Your task to perform on an android device: Add razer kraken to the cart on walmart.com Image 0: 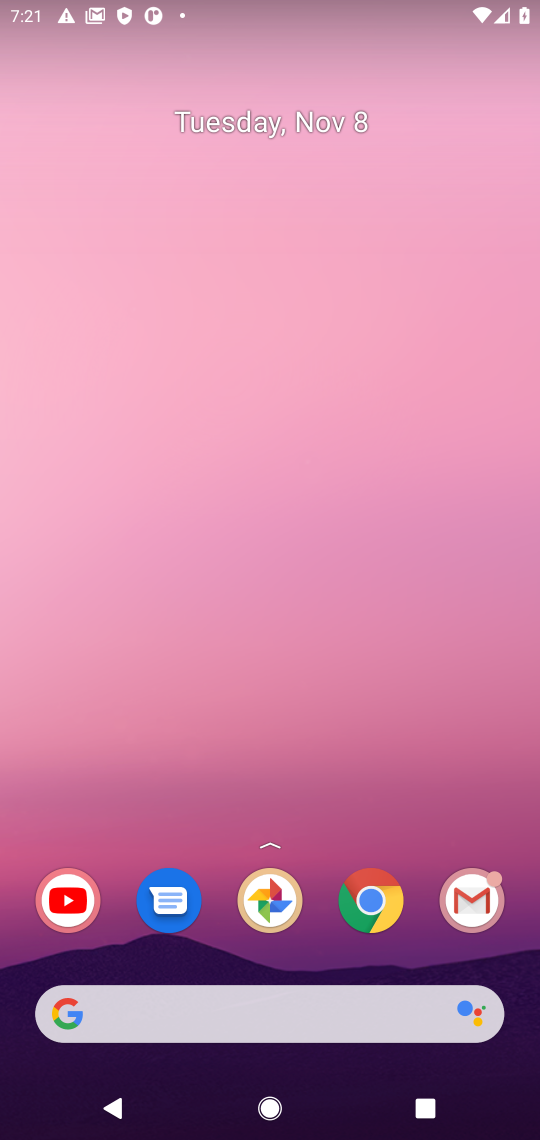
Step 0: click (367, 915)
Your task to perform on an android device: Add razer kraken to the cart on walmart.com Image 1: 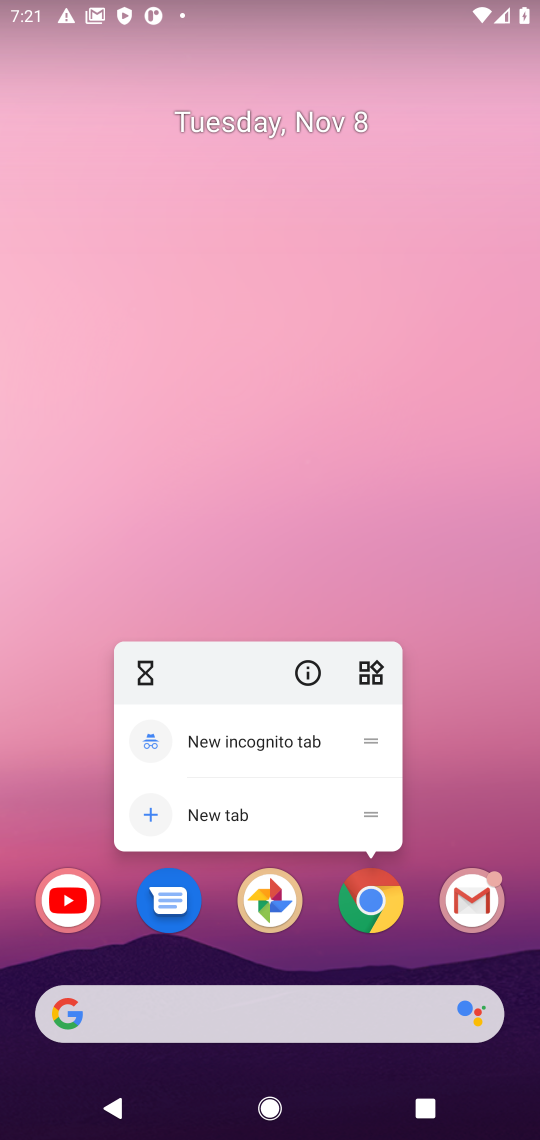
Step 1: click (367, 916)
Your task to perform on an android device: Add razer kraken to the cart on walmart.com Image 2: 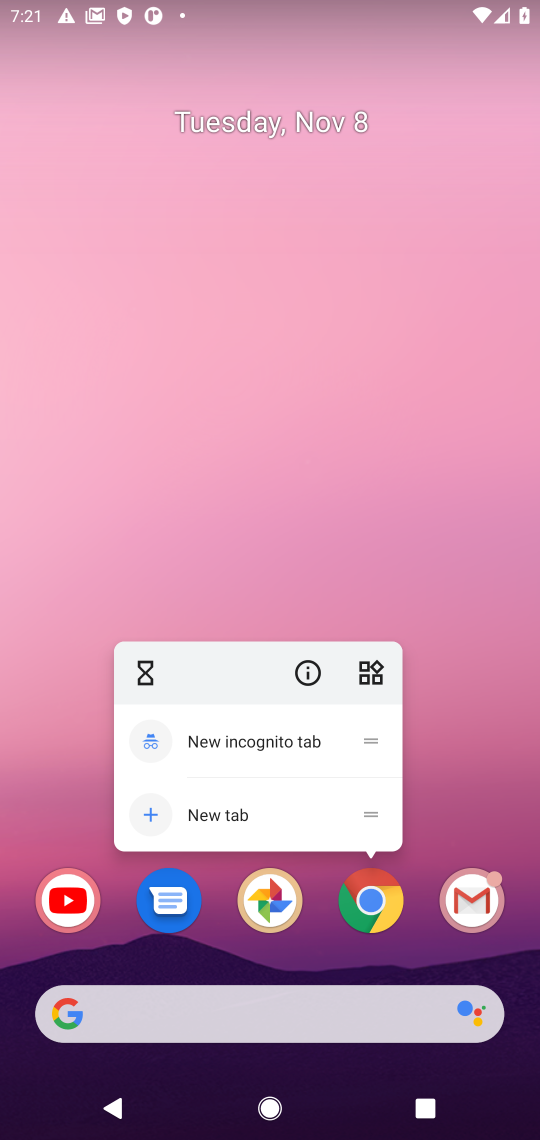
Step 2: click (367, 916)
Your task to perform on an android device: Add razer kraken to the cart on walmart.com Image 3: 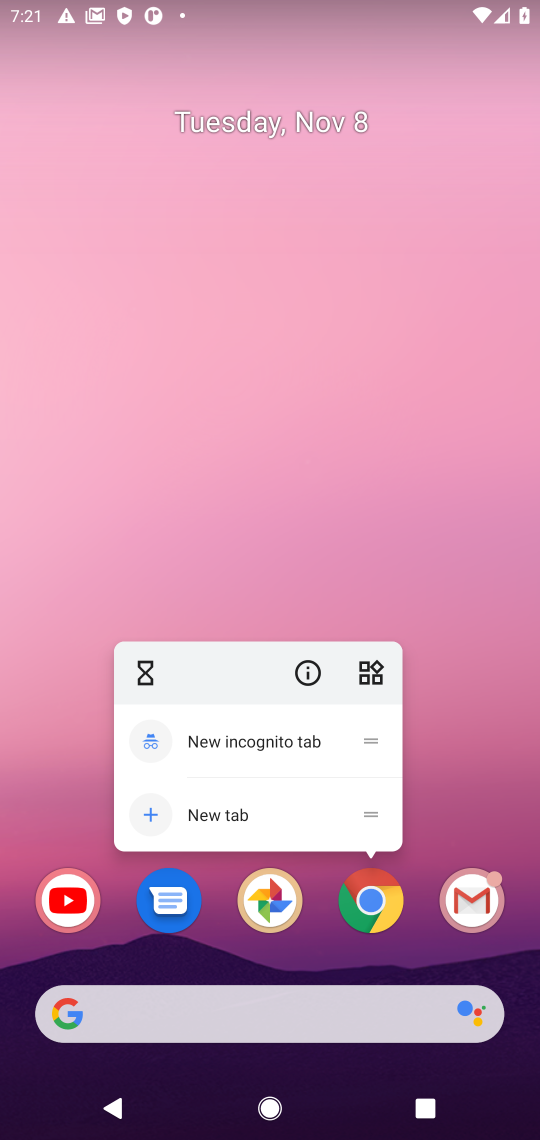
Step 3: click (376, 901)
Your task to perform on an android device: Add razer kraken to the cart on walmart.com Image 4: 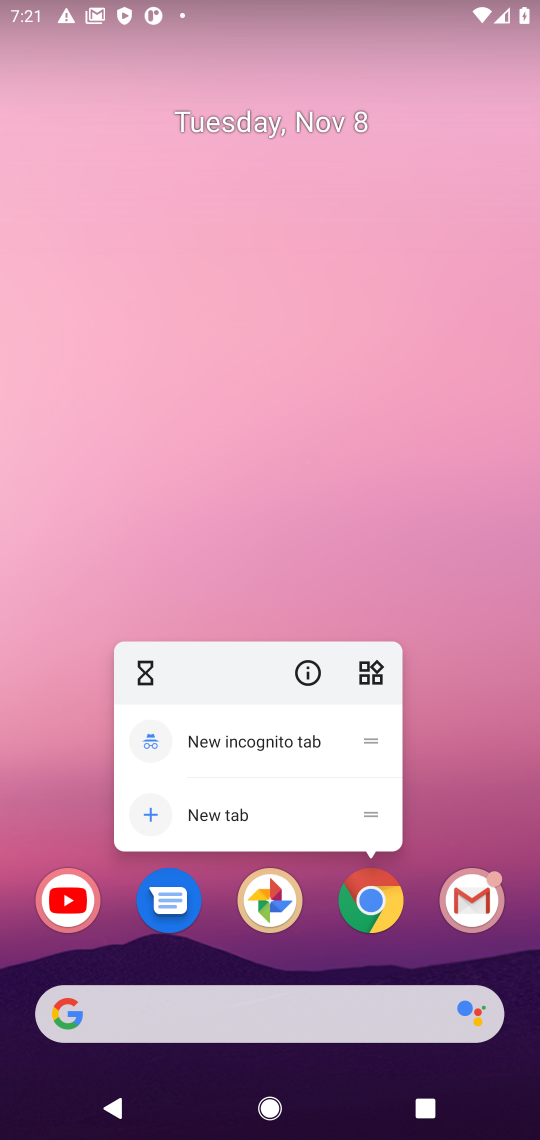
Step 4: click (381, 905)
Your task to perform on an android device: Add razer kraken to the cart on walmart.com Image 5: 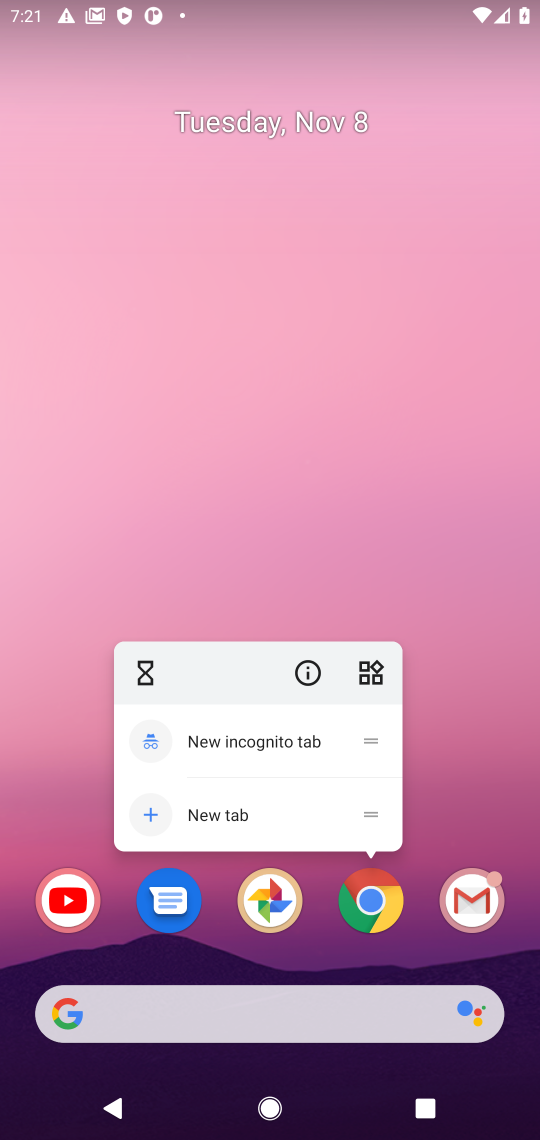
Step 5: click (381, 905)
Your task to perform on an android device: Add razer kraken to the cart on walmart.com Image 6: 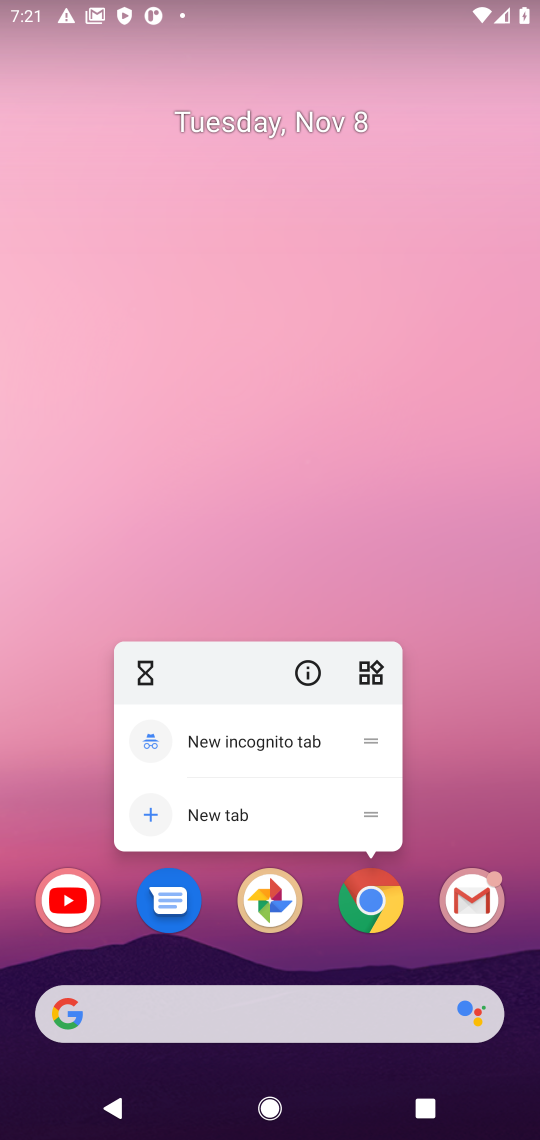
Step 6: click (381, 905)
Your task to perform on an android device: Add razer kraken to the cart on walmart.com Image 7: 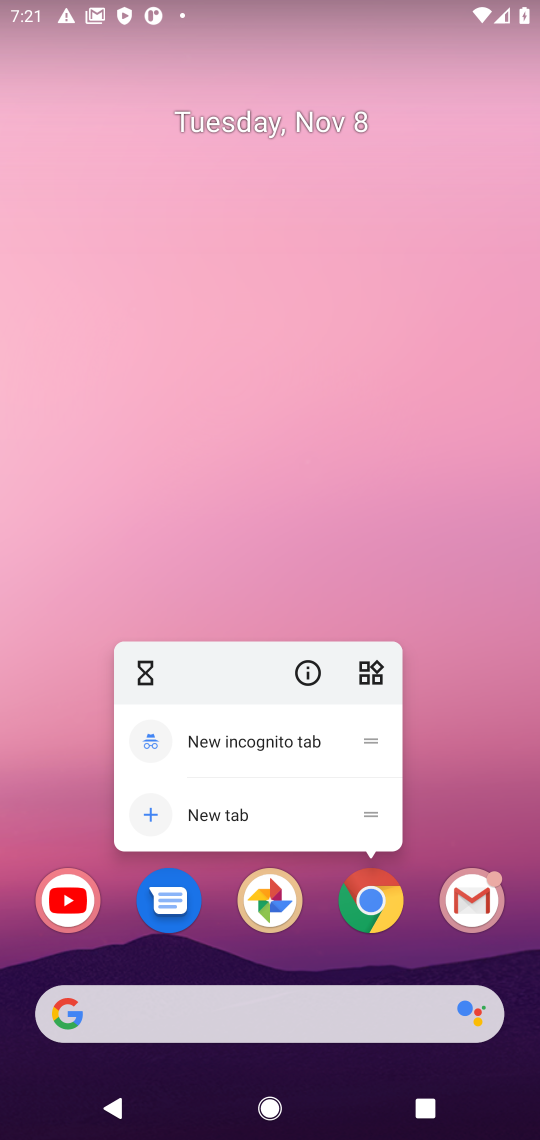
Step 7: click (373, 899)
Your task to perform on an android device: Add razer kraken to the cart on walmart.com Image 8: 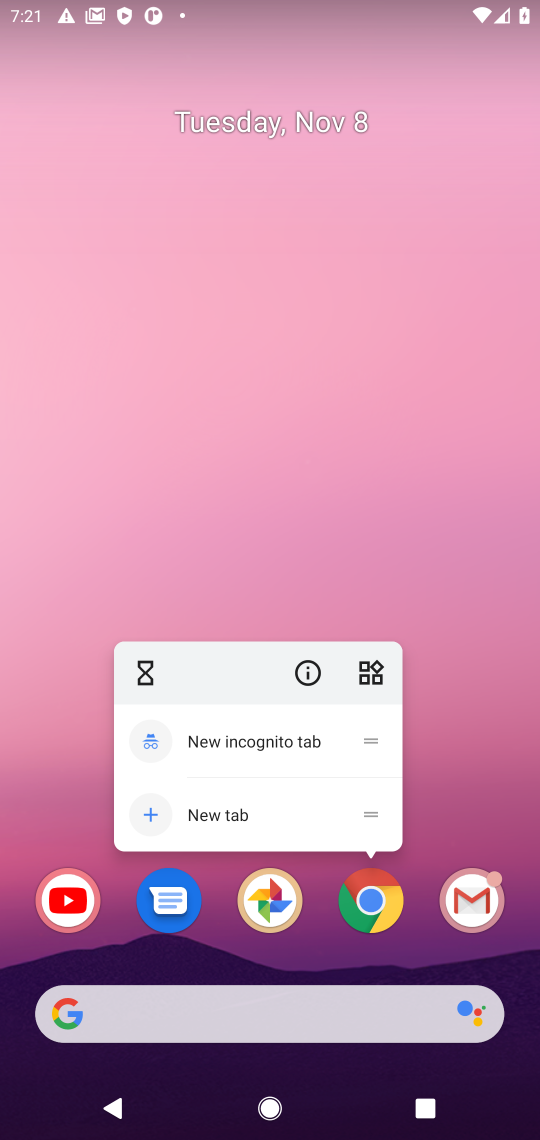
Step 8: press home button
Your task to perform on an android device: Add razer kraken to the cart on walmart.com Image 9: 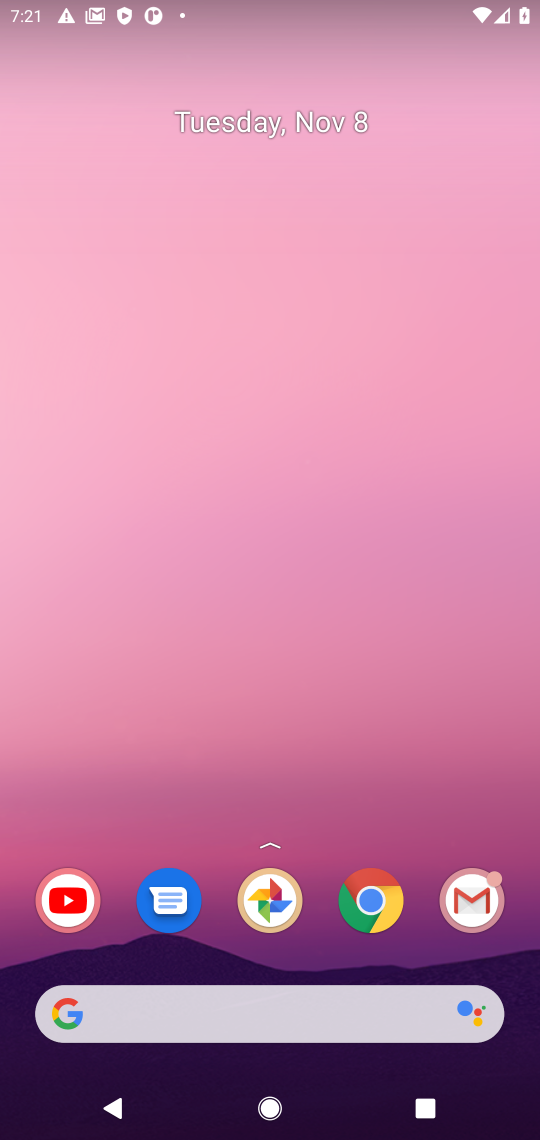
Step 9: press home button
Your task to perform on an android device: Add razer kraken to the cart on walmart.com Image 10: 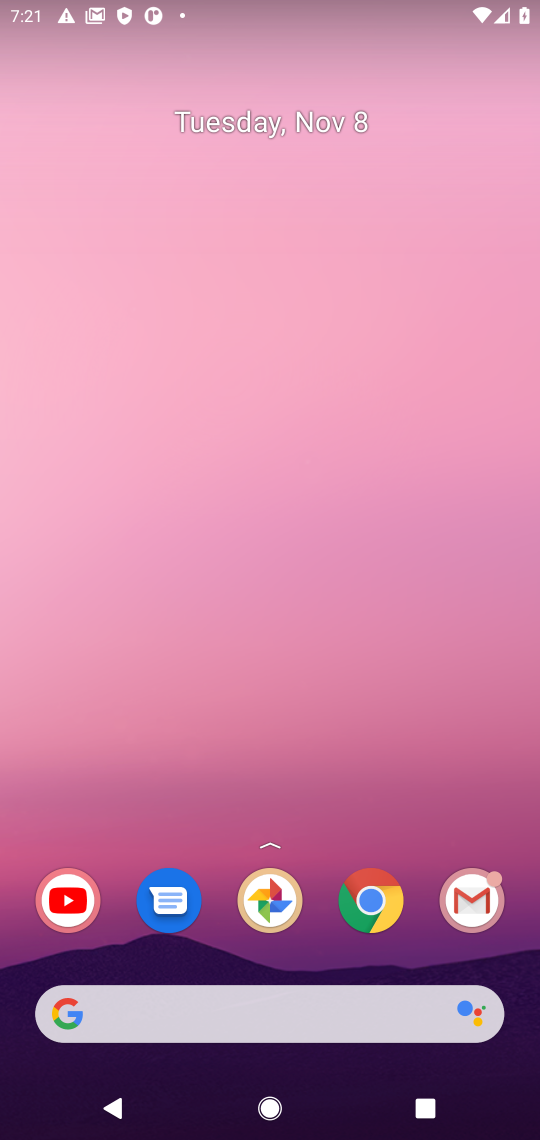
Step 10: press home button
Your task to perform on an android device: Add razer kraken to the cart on walmart.com Image 11: 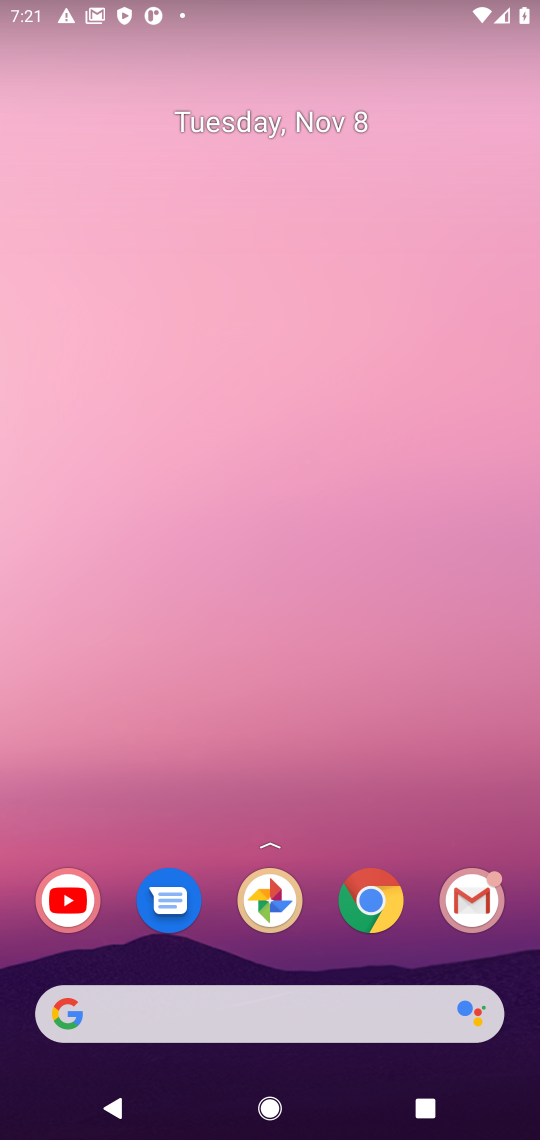
Step 11: click (368, 891)
Your task to perform on an android device: Add razer kraken to the cart on walmart.com Image 12: 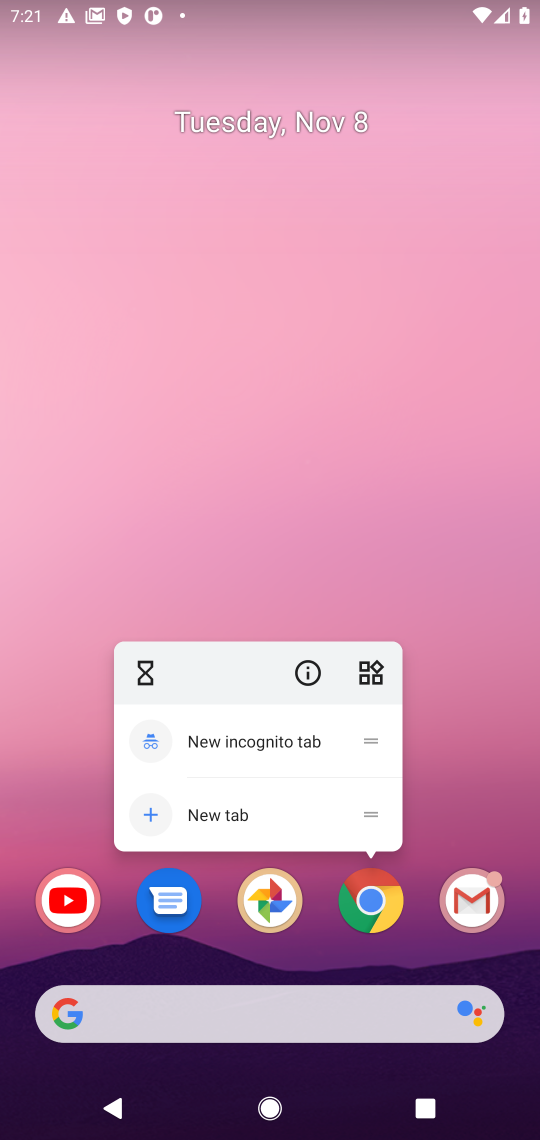
Step 12: click (389, 907)
Your task to perform on an android device: Add razer kraken to the cart on walmart.com Image 13: 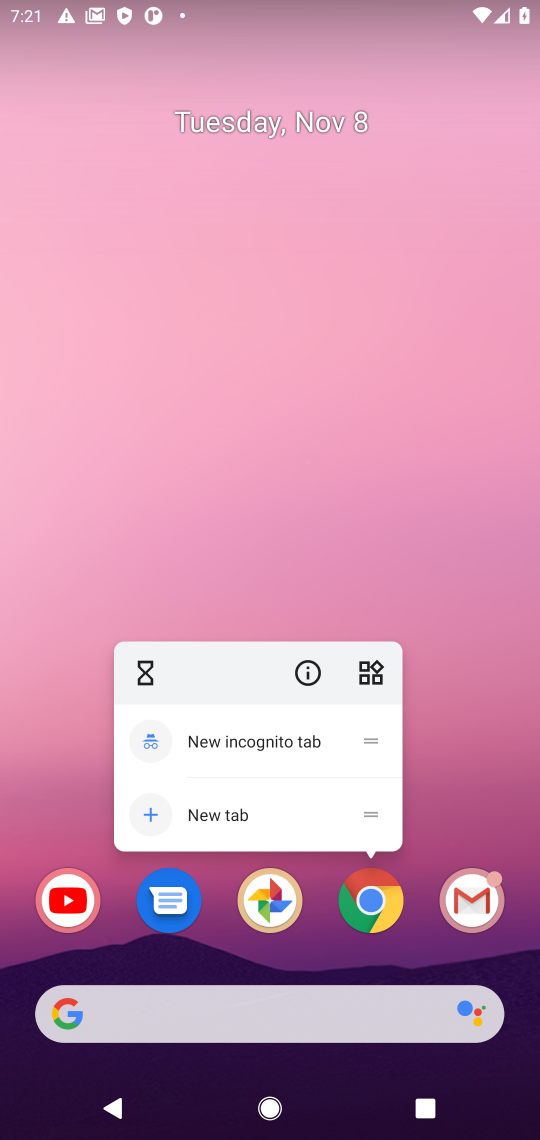
Step 13: click (385, 904)
Your task to perform on an android device: Add razer kraken to the cart on walmart.com Image 14: 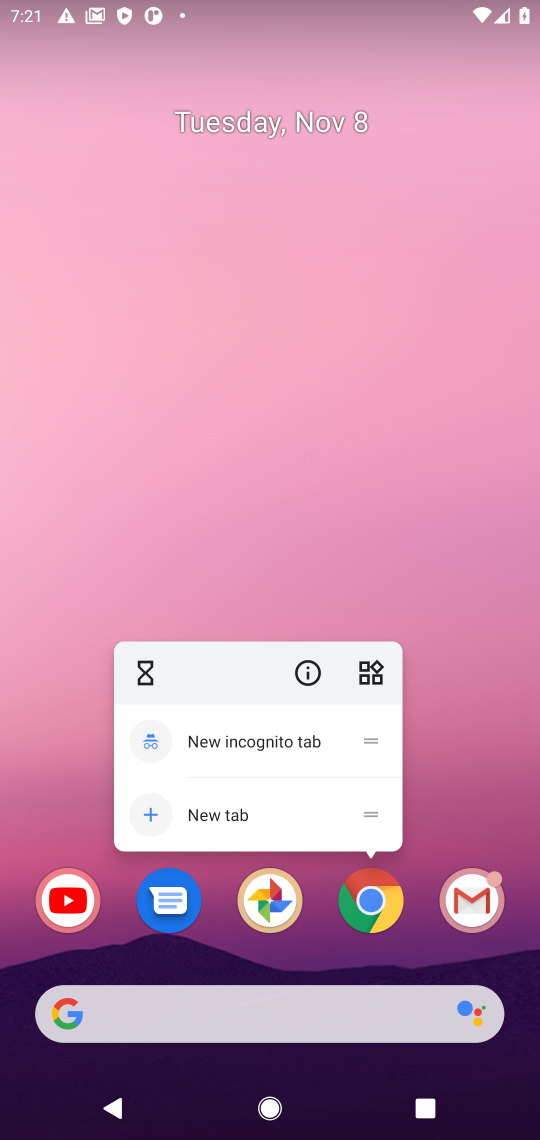
Step 14: click (386, 903)
Your task to perform on an android device: Add razer kraken to the cart on walmart.com Image 15: 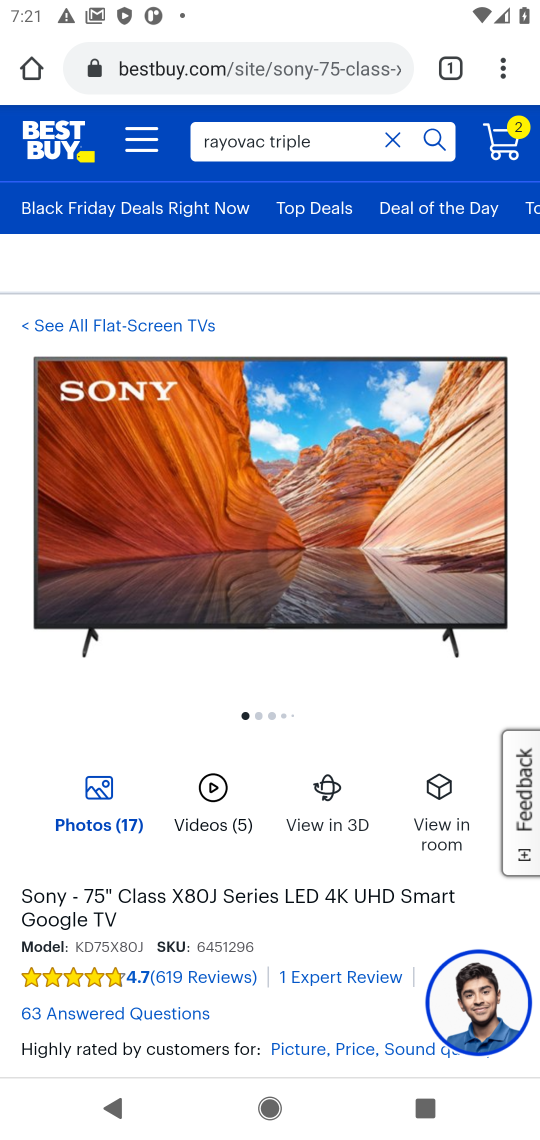
Step 15: click (255, 76)
Your task to perform on an android device: Add razer kraken to the cart on walmart.com Image 16: 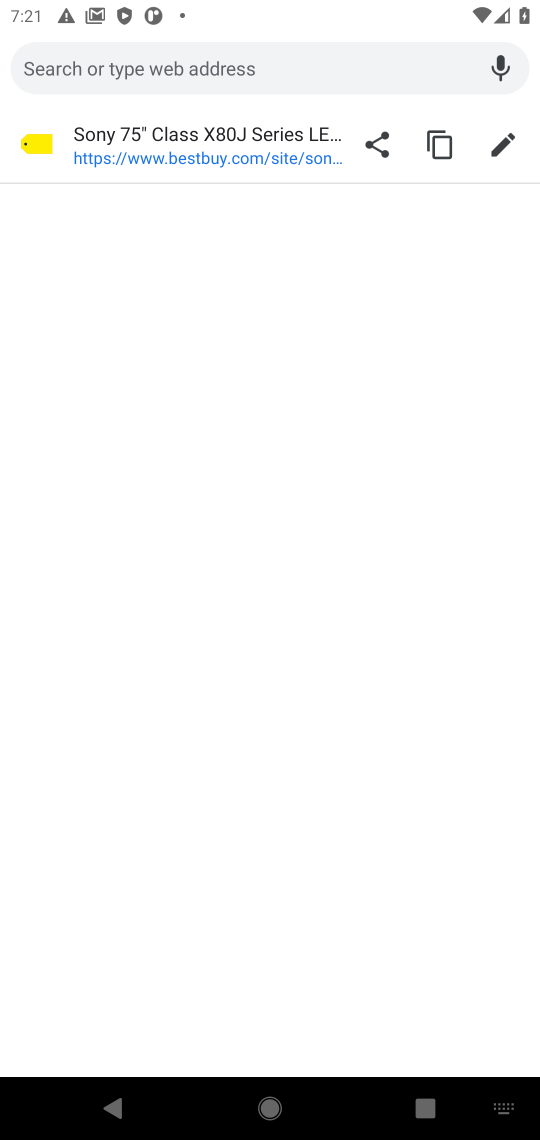
Step 16: type "walmart "
Your task to perform on an android device: Add razer kraken to the cart on walmart.com Image 17: 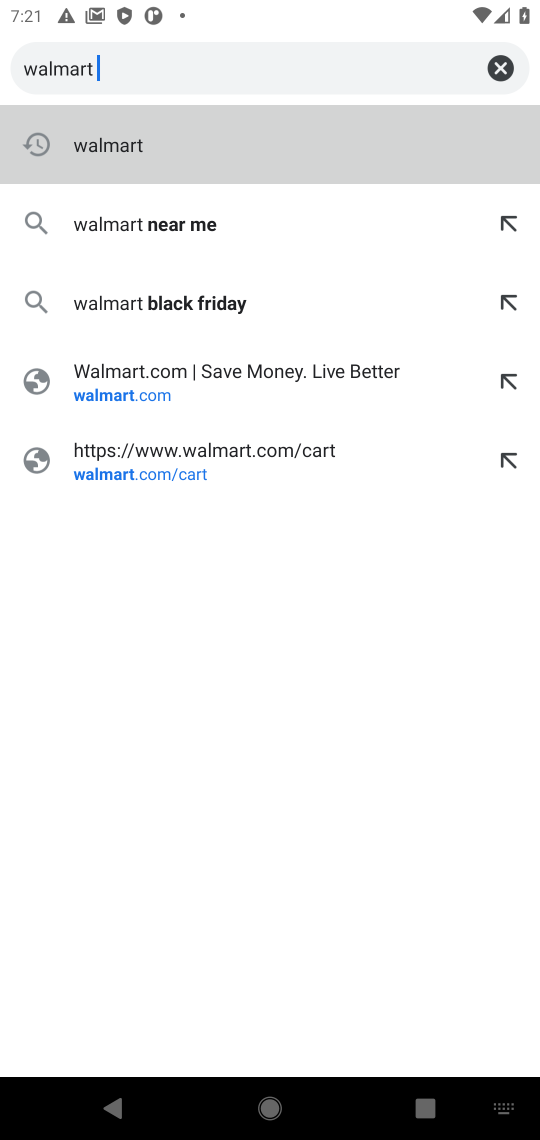
Step 17: click (138, 378)
Your task to perform on an android device: Add razer kraken to the cart on walmart.com Image 18: 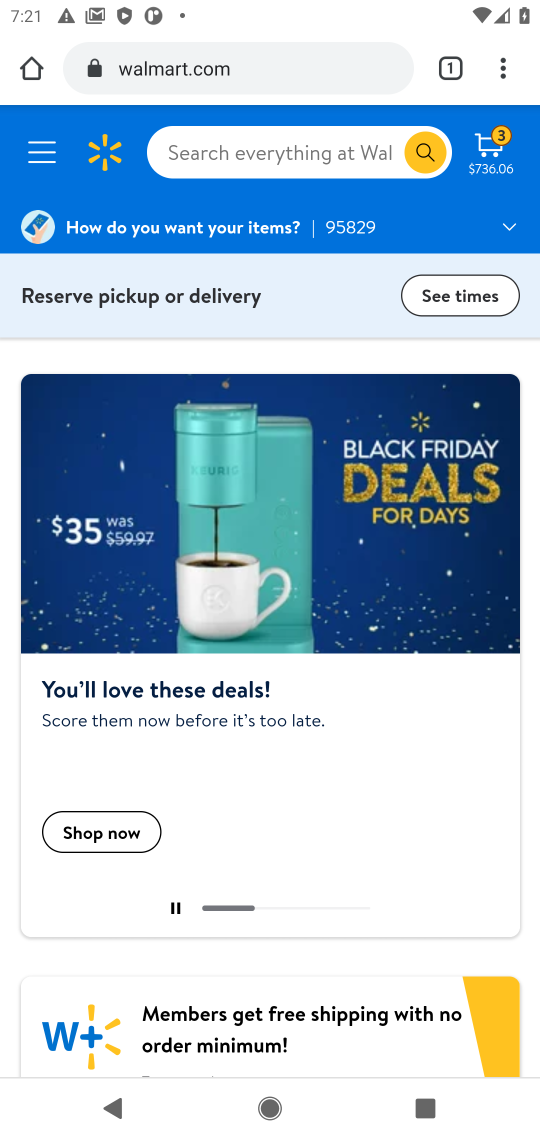
Step 18: click (264, 148)
Your task to perform on an android device: Add razer kraken to the cart on walmart.com Image 19: 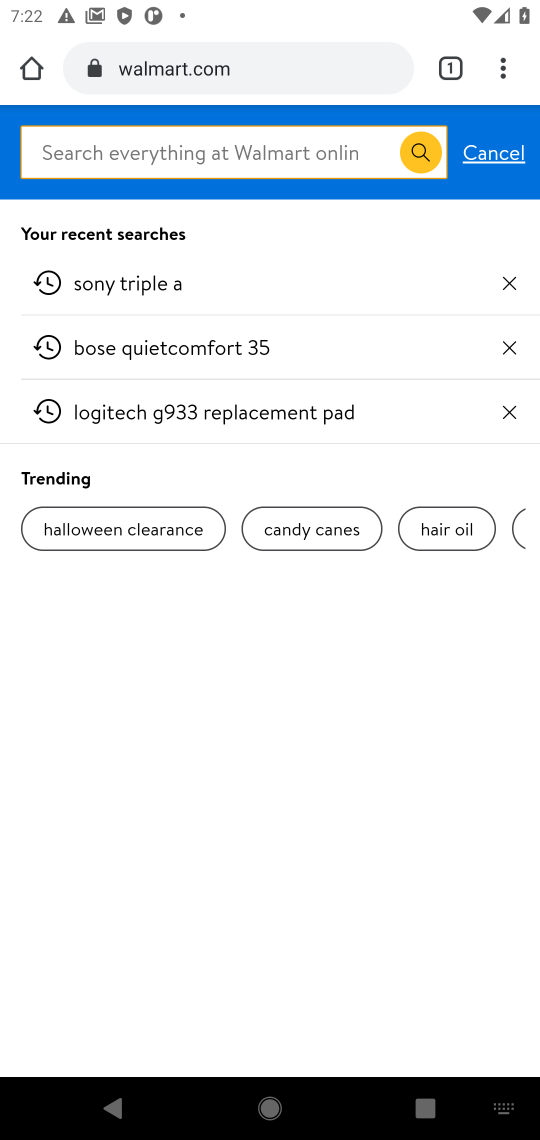
Step 19: type "razer kraken"
Your task to perform on an android device: Add razer kraken to the cart on walmart.com Image 20: 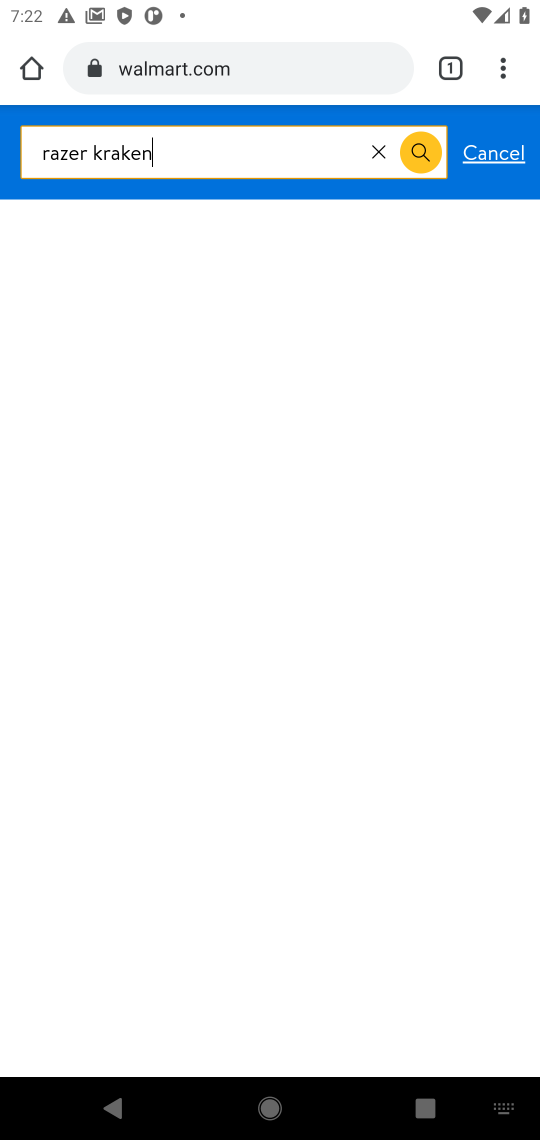
Step 20: type ""
Your task to perform on an android device: Add razer kraken to the cart on walmart.com Image 21: 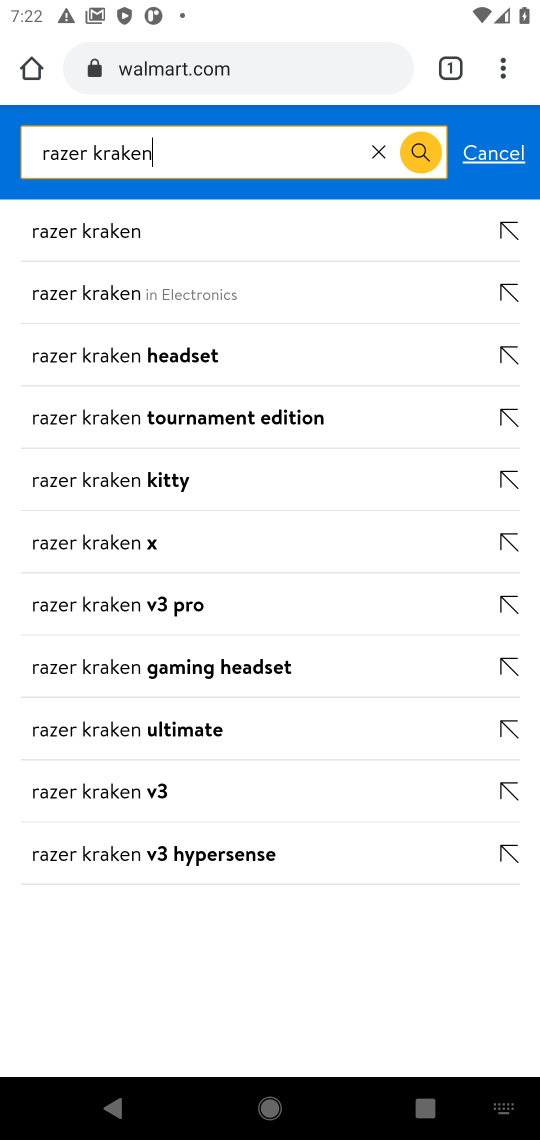
Step 21: click (101, 236)
Your task to perform on an android device: Add razer kraken to the cart on walmart.com Image 22: 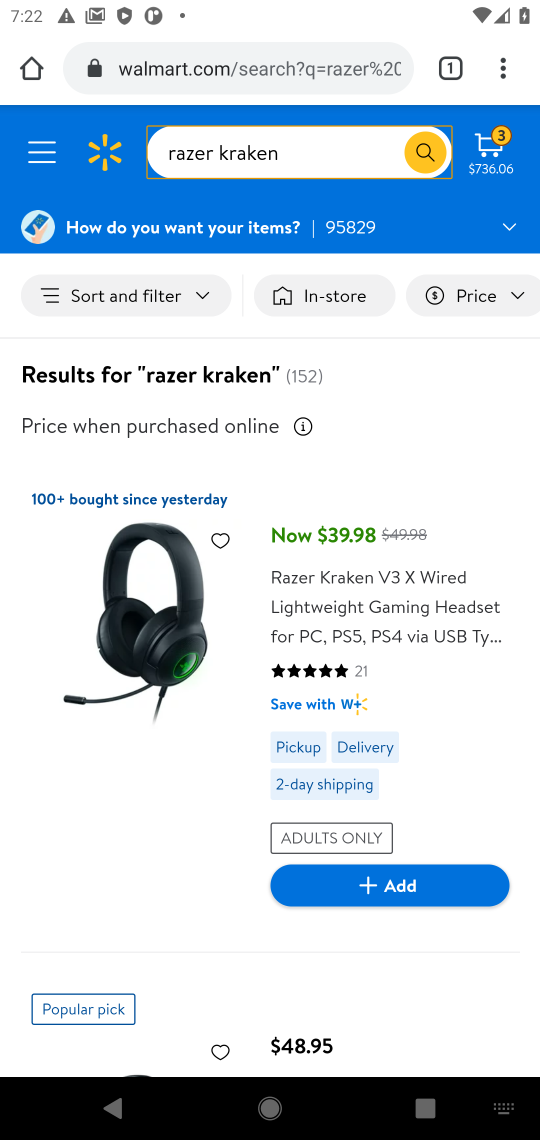
Step 22: click (285, 592)
Your task to perform on an android device: Add razer kraken to the cart on walmart.com Image 23: 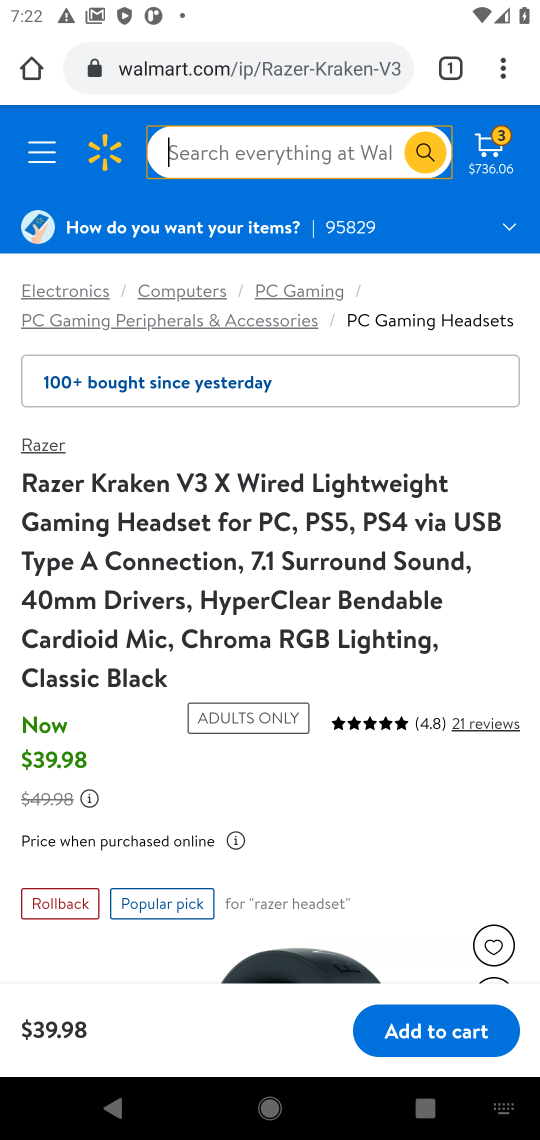
Step 23: drag from (274, 845) to (321, 379)
Your task to perform on an android device: Add razer kraken to the cart on walmart.com Image 24: 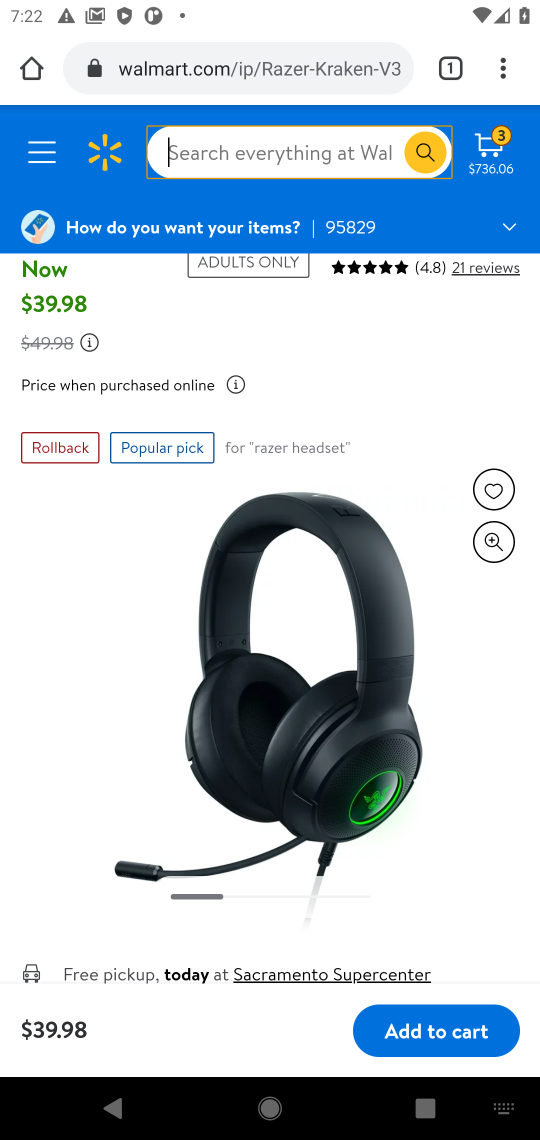
Step 24: click (452, 1041)
Your task to perform on an android device: Add razer kraken to the cart on walmart.com Image 25: 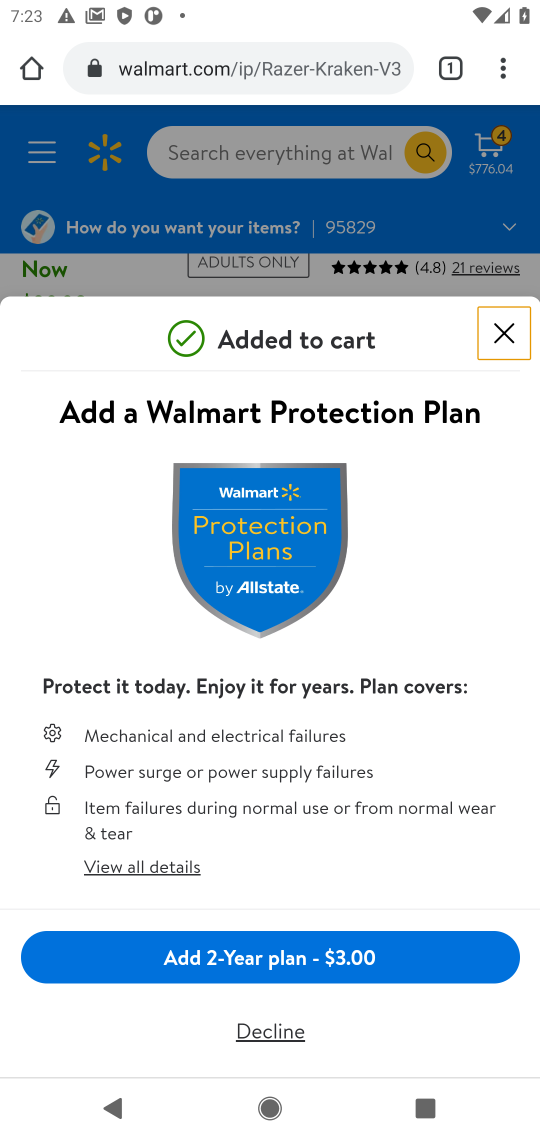
Step 25: click (503, 335)
Your task to perform on an android device: Add razer kraken to the cart on walmart.com Image 26: 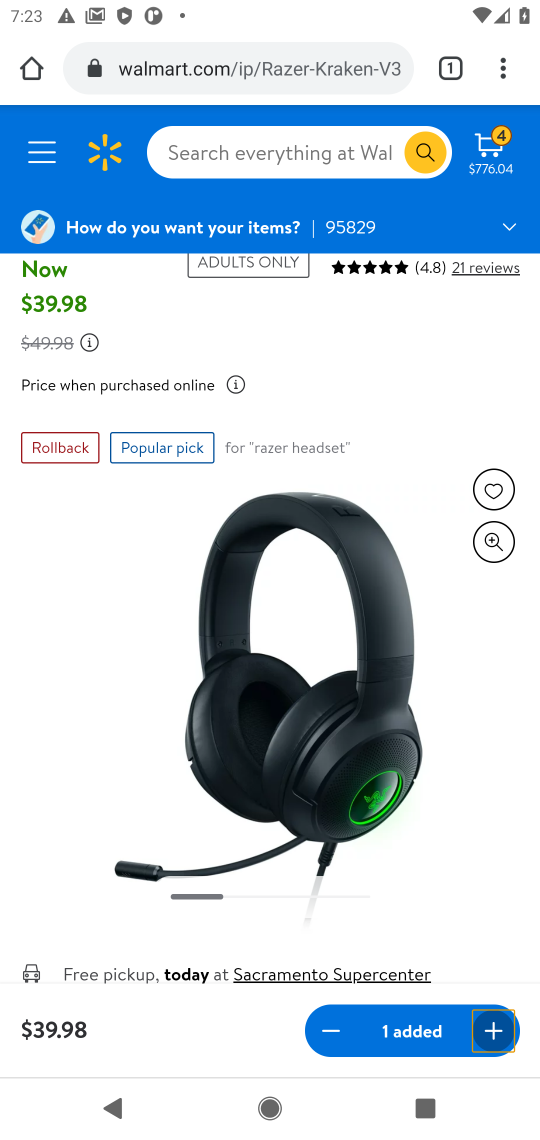
Step 26: click (496, 148)
Your task to perform on an android device: Add razer kraken to the cart on walmart.com Image 27: 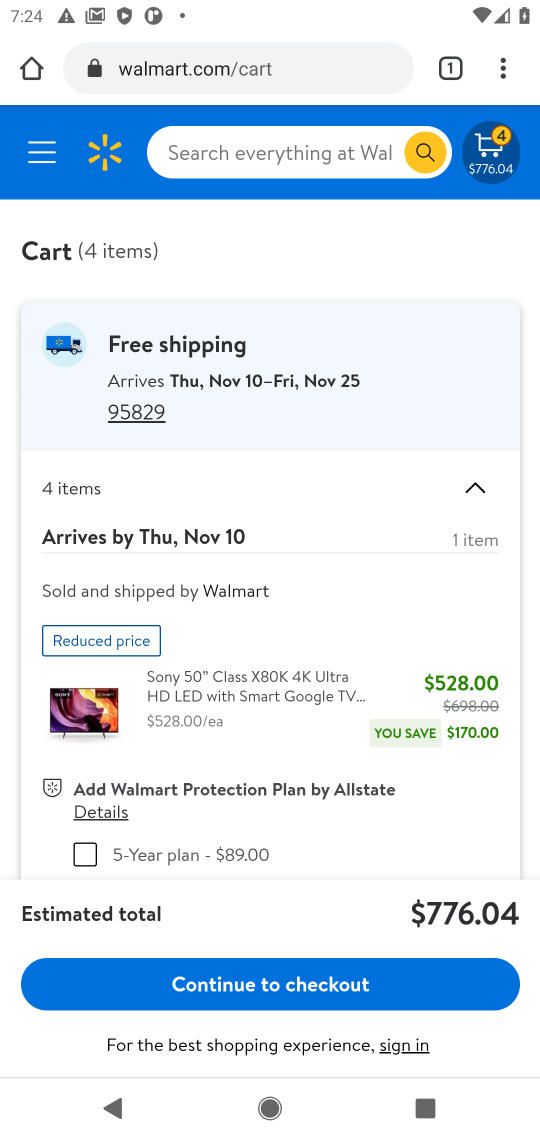
Step 27: task complete